Your task to perform on an android device: Show me popular games on the Play Store Image 0: 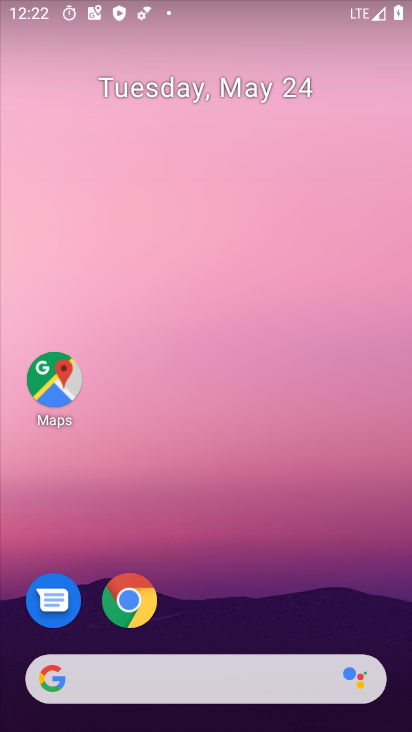
Step 0: drag from (231, 571) to (237, 181)
Your task to perform on an android device: Show me popular games on the Play Store Image 1: 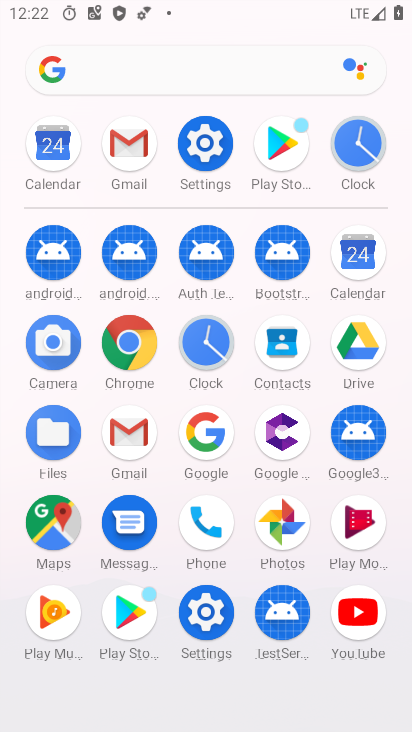
Step 1: click (116, 615)
Your task to perform on an android device: Show me popular games on the Play Store Image 2: 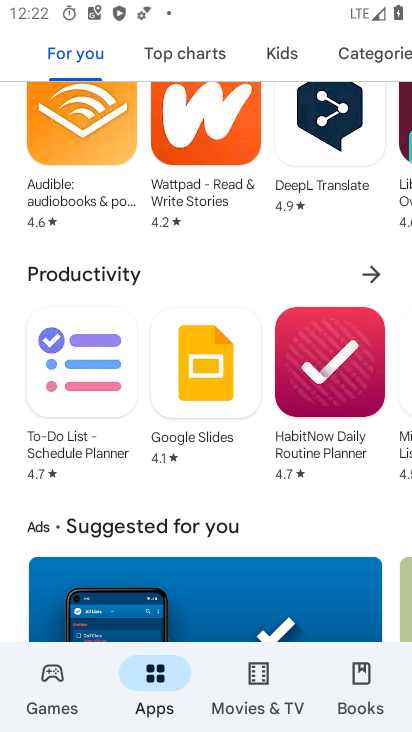
Step 2: click (45, 691)
Your task to perform on an android device: Show me popular games on the Play Store Image 3: 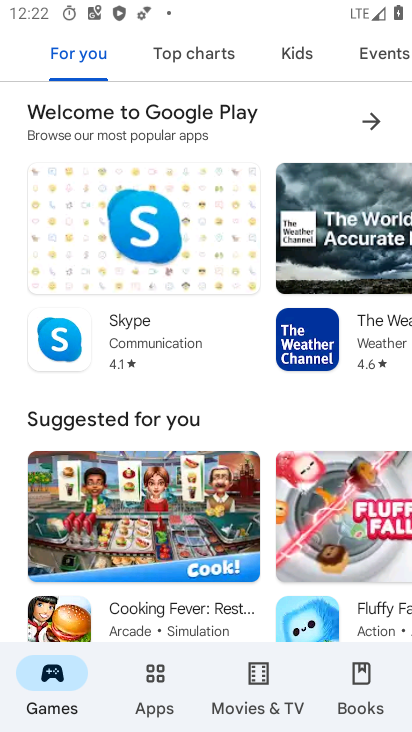
Step 3: task complete